Your task to perform on an android device: Open the Play Movies app and select the watchlist tab. Image 0: 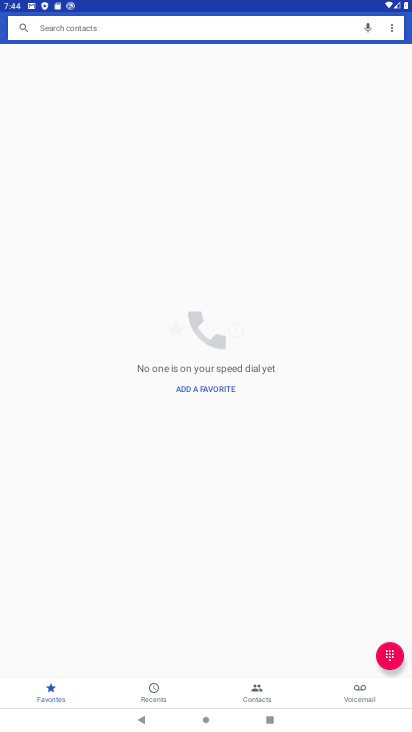
Step 0: press home button
Your task to perform on an android device: Open the Play Movies app and select the watchlist tab. Image 1: 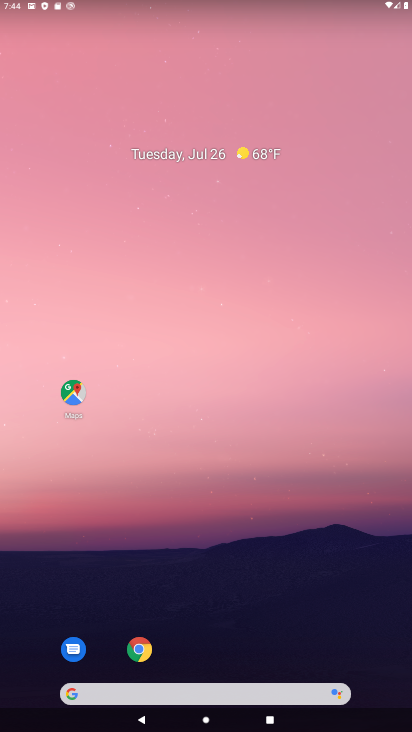
Step 1: drag from (318, 702) to (391, 222)
Your task to perform on an android device: Open the Play Movies app and select the watchlist tab. Image 2: 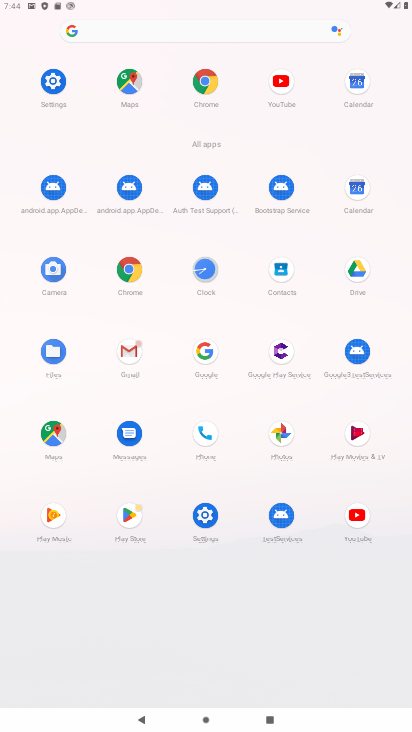
Step 2: click (356, 429)
Your task to perform on an android device: Open the Play Movies app and select the watchlist tab. Image 3: 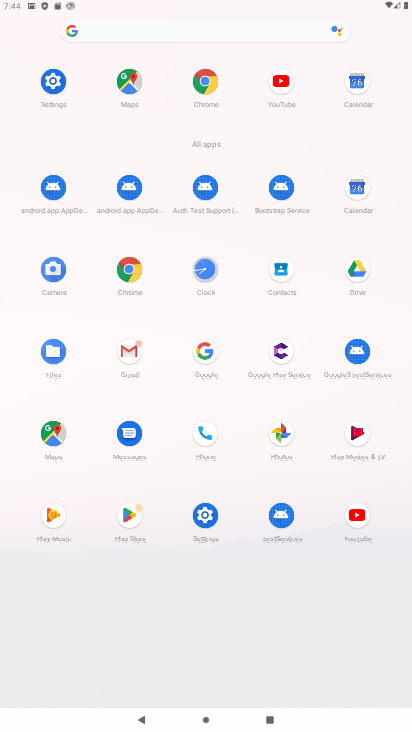
Step 3: click (356, 429)
Your task to perform on an android device: Open the Play Movies app and select the watchlist tab. Image 4: 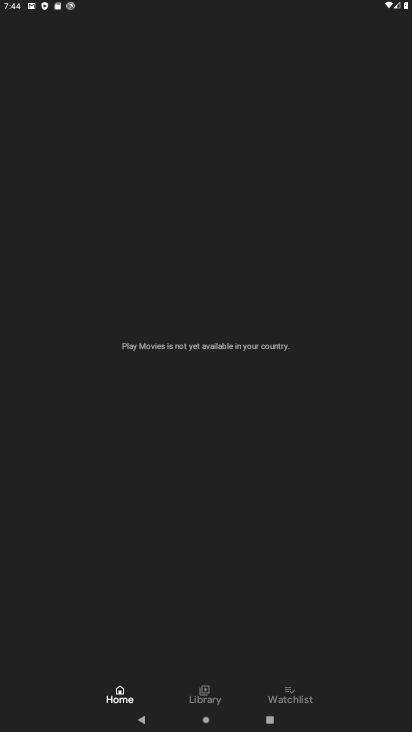
Step 4: click (300, 694)
Your task to perform on an android device: Open the Play Movies app and select the watchlist tab. Image 5: 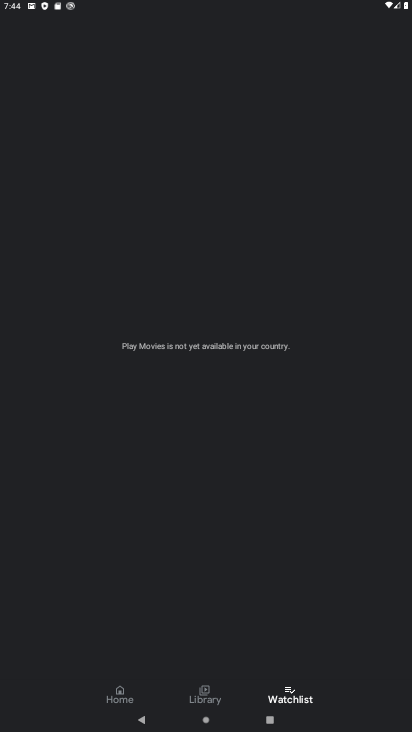
Step 5: task complete